Your task to perform on an android device: toggle show notifications on the lock screen Image 0: 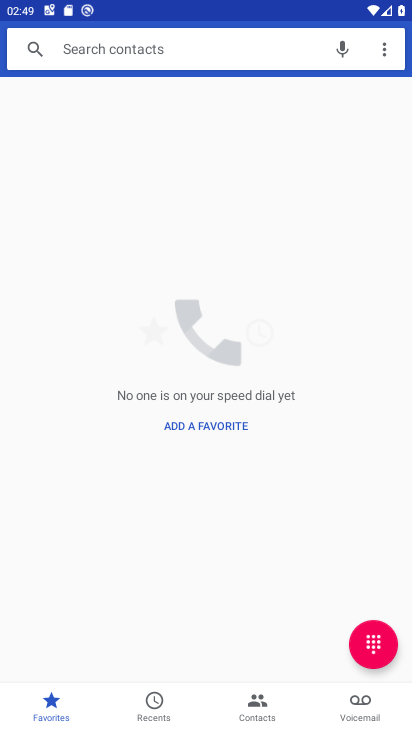
Step 0: press home button
Your task to perform on an android device: toggle show notifications on the lock screen Image 1: 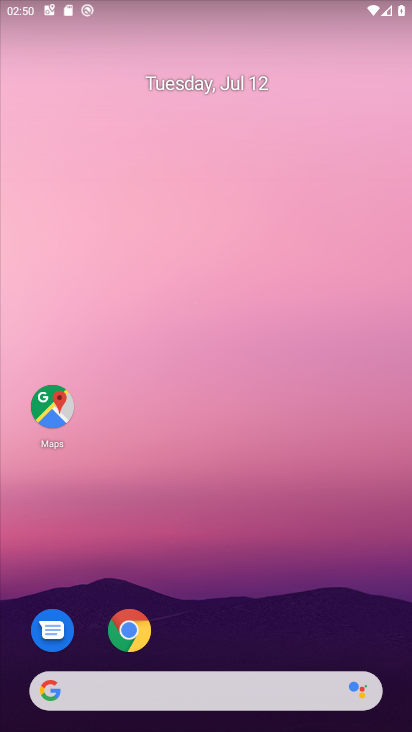
Step 1: drag from (387, 655) to (320, 66)
Your task to perform on an android device: toggle show notifications on the lock screen Image 2: 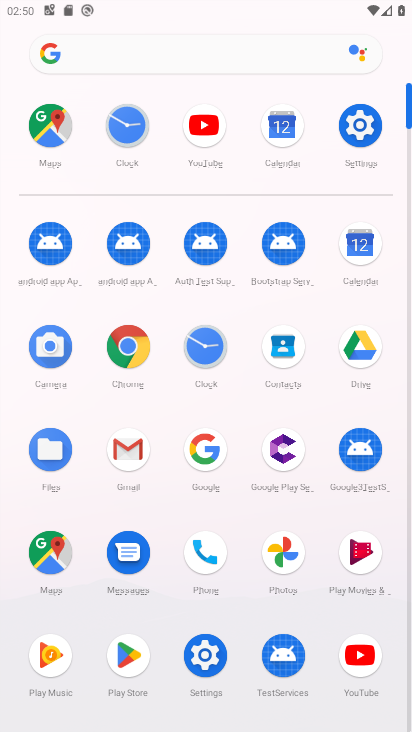
Step 2: click (206, 658)
Your task to perform on an android device: toggle show notifications on the lock screen Image 3: 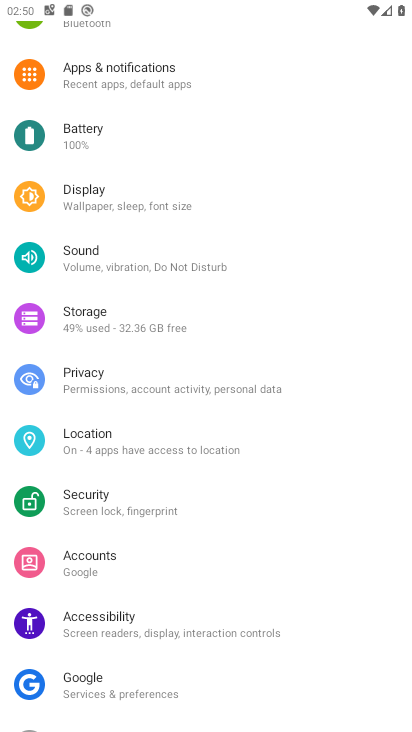
Step 3: click (131, 69)
Your task to perform on an android device: toggle show notifications on the lock screen Image 4: 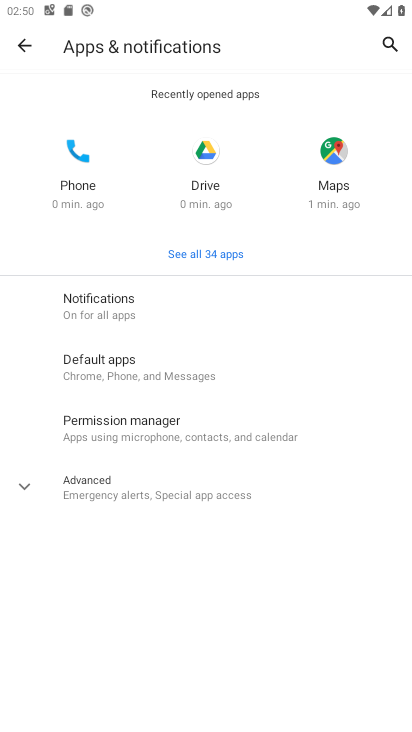
Step 4: click (107, 315)
Your task to perform on an android device: toggle show notifications on the lock screen Image 5: 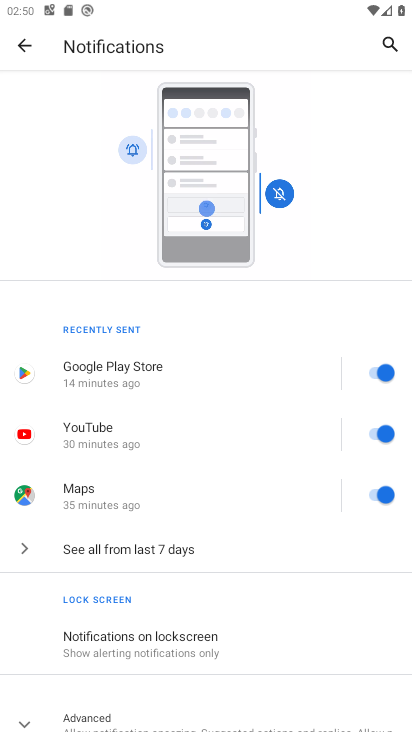
Step 5: click (146, 642)
Your task to perform on an android device: toggle show notifications on the lock screen Image 6: 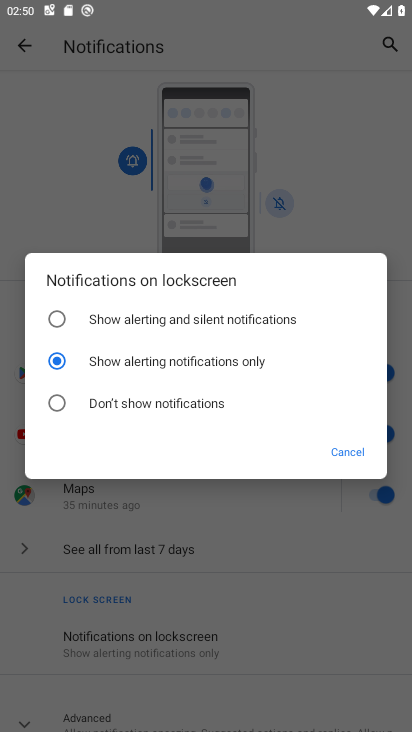
Step 6: click (59, 317)
Your task to perform on an android device: toggle show notifications on the lock screen Image 7: 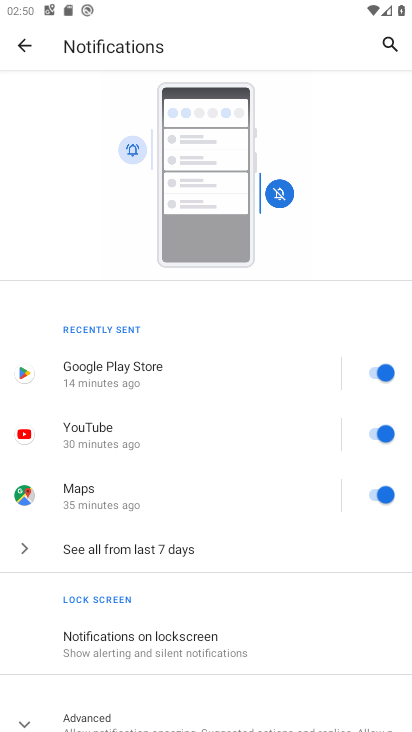
Step 7: task complete